Your task to perform on an android device: allow cookies in the chrome app Image 0: 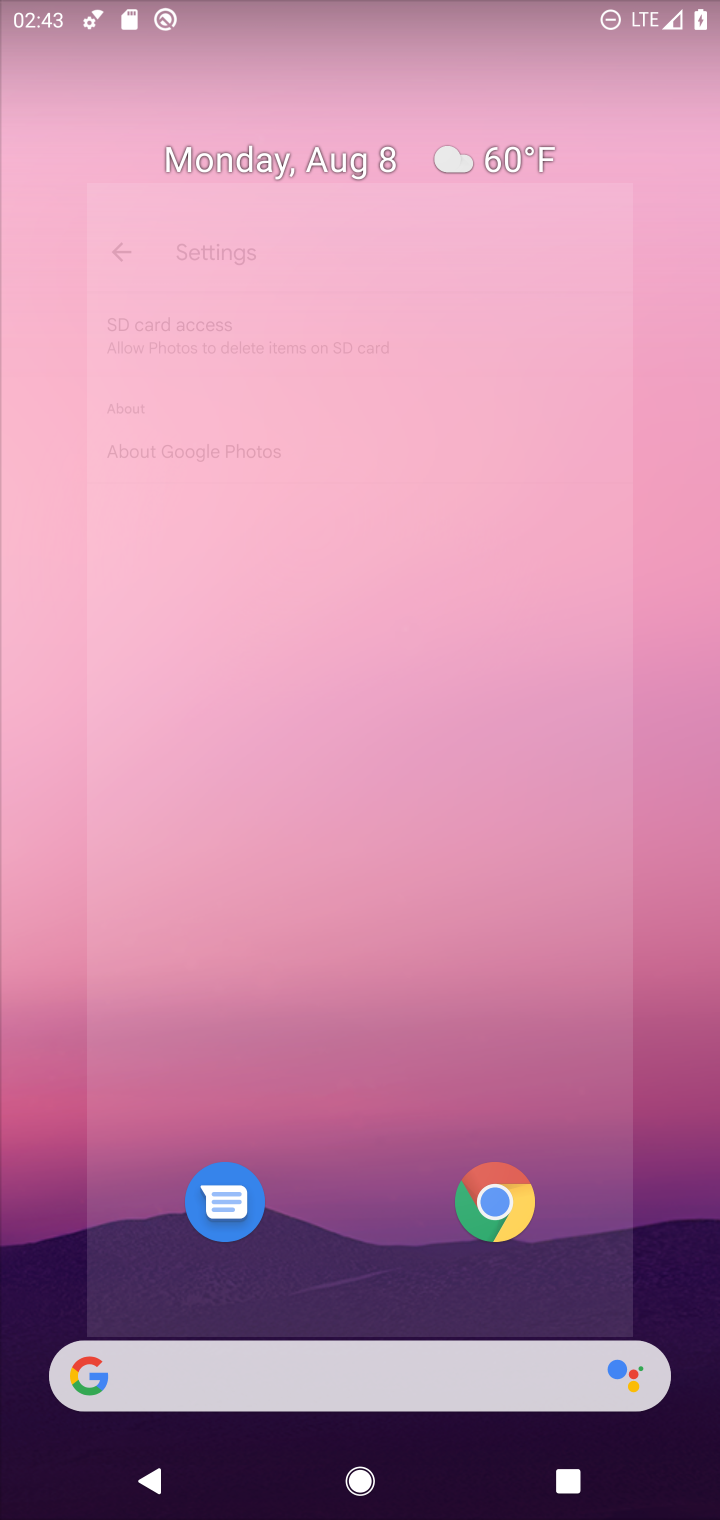
Step 0: press home button
Your task to perform on an android device: allow cookies in the chrome app Image 1: 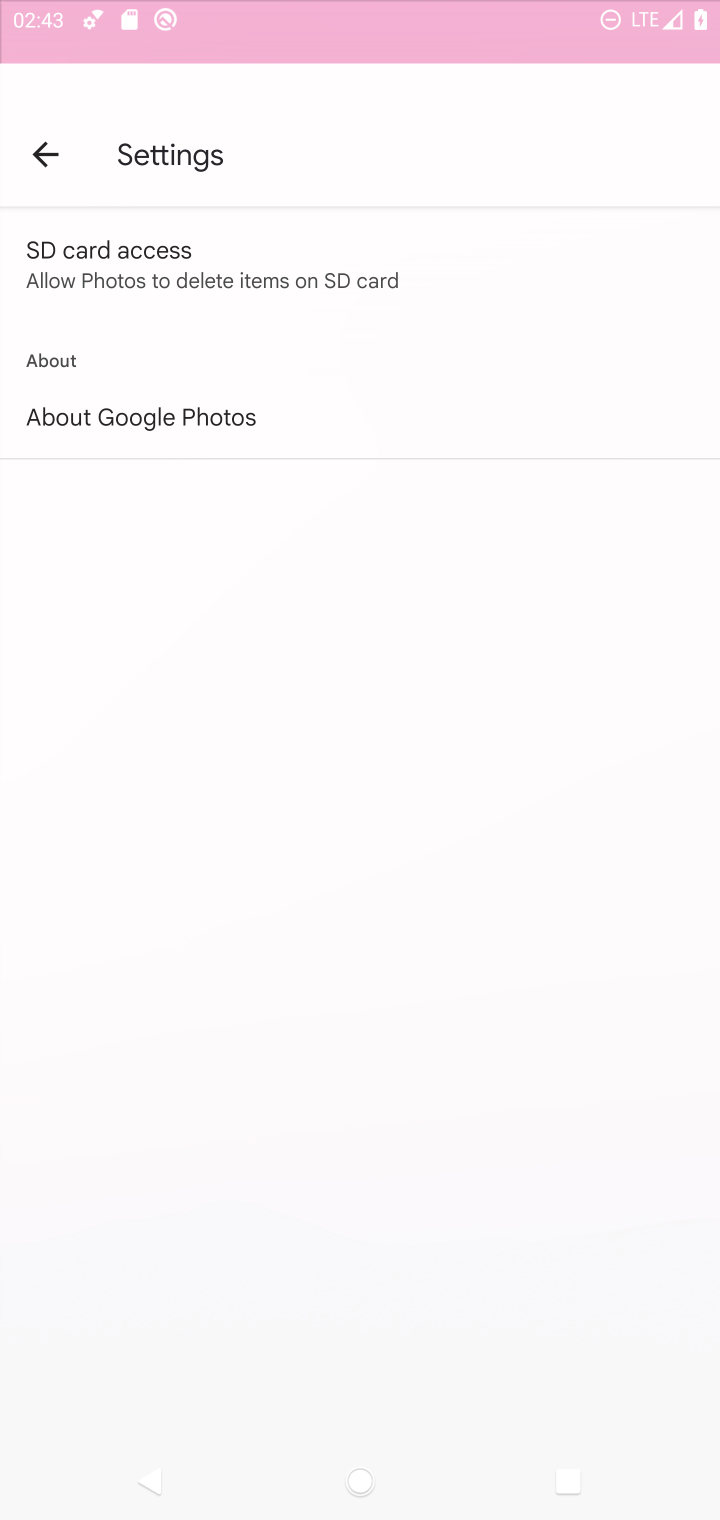
Step 1: press home button
Your task to perform on an android device: allow cookies in the chrome app Image 2: 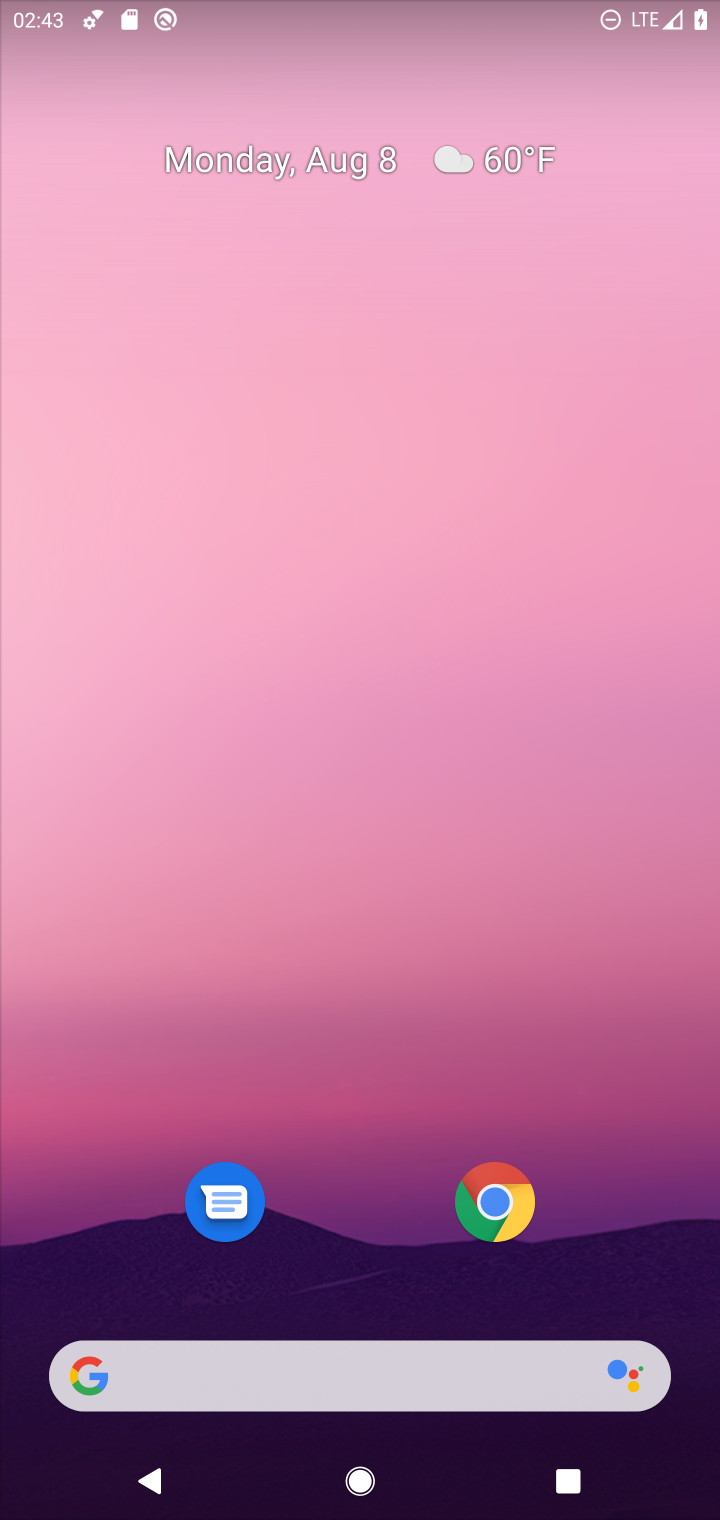
Step 2: drag from (362, 1283) to (513, 204)
Your task to perform on an android device: allow cookies in the chrome app Image 3: 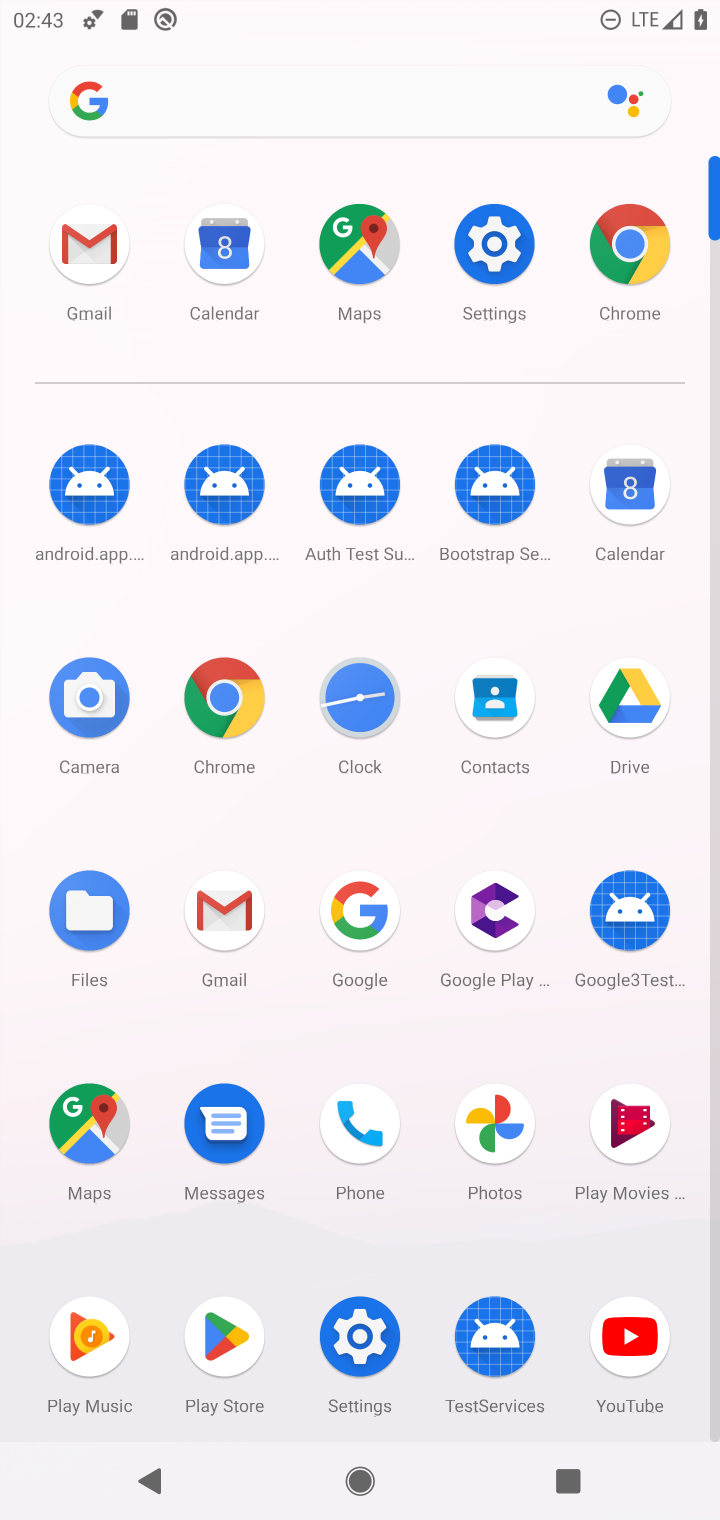
Step 3: click (223, 704)
Your task to perform on an android device: allow cookies in the chrome app Image 4: 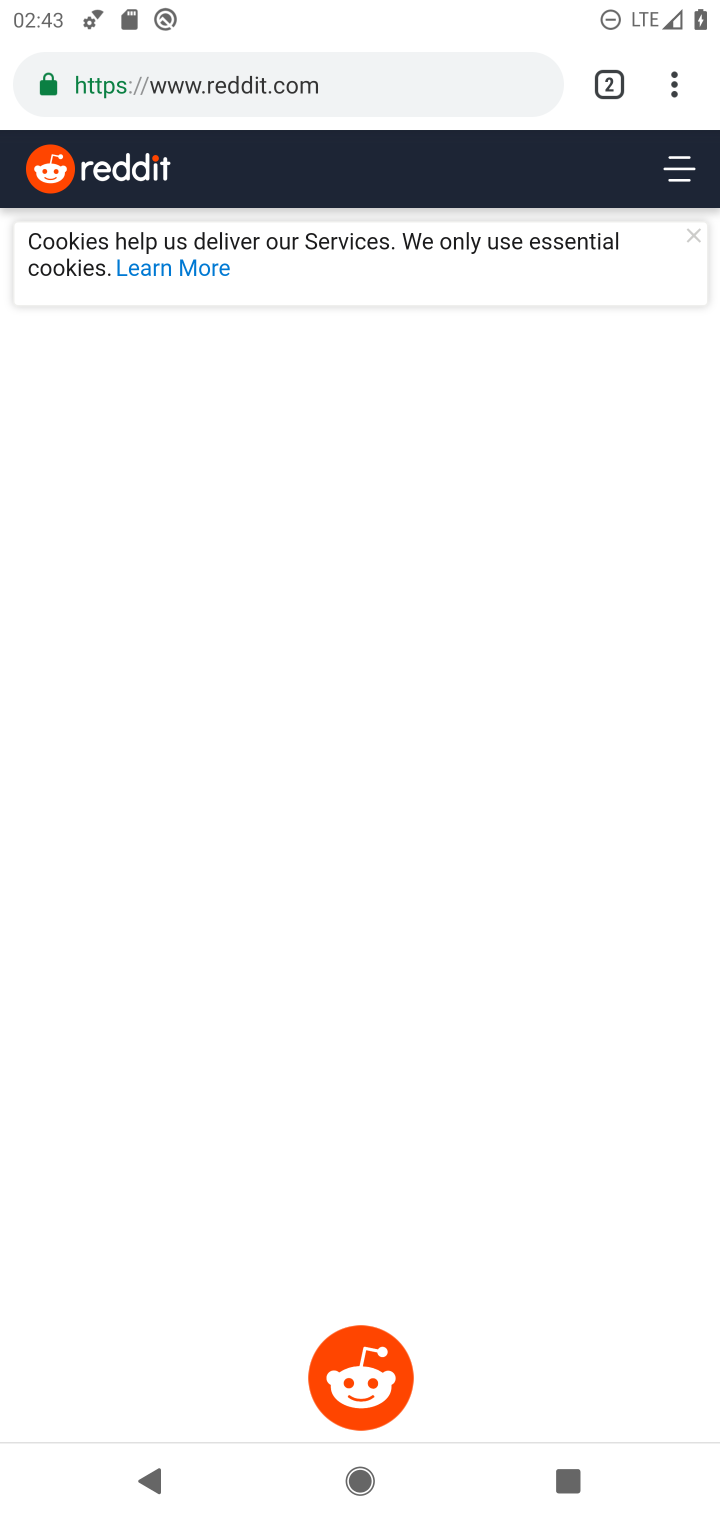
Step 4: click (671, 83)
Your task to perform on an android device: allow cookies in the chrome app Image 5: 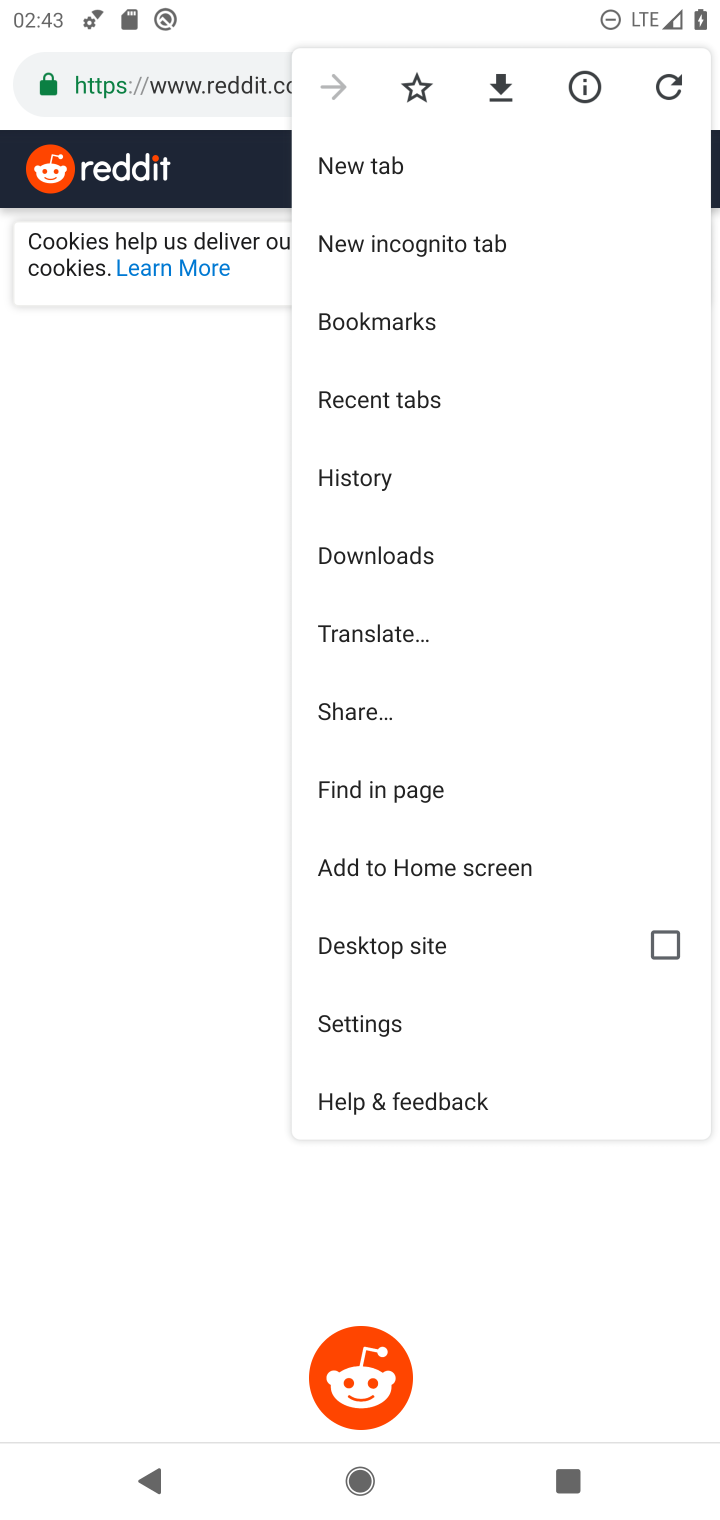
Step 5: click (424, 1029)
Your task to perform on an android device: allow cookies in the chrome app Image 6: 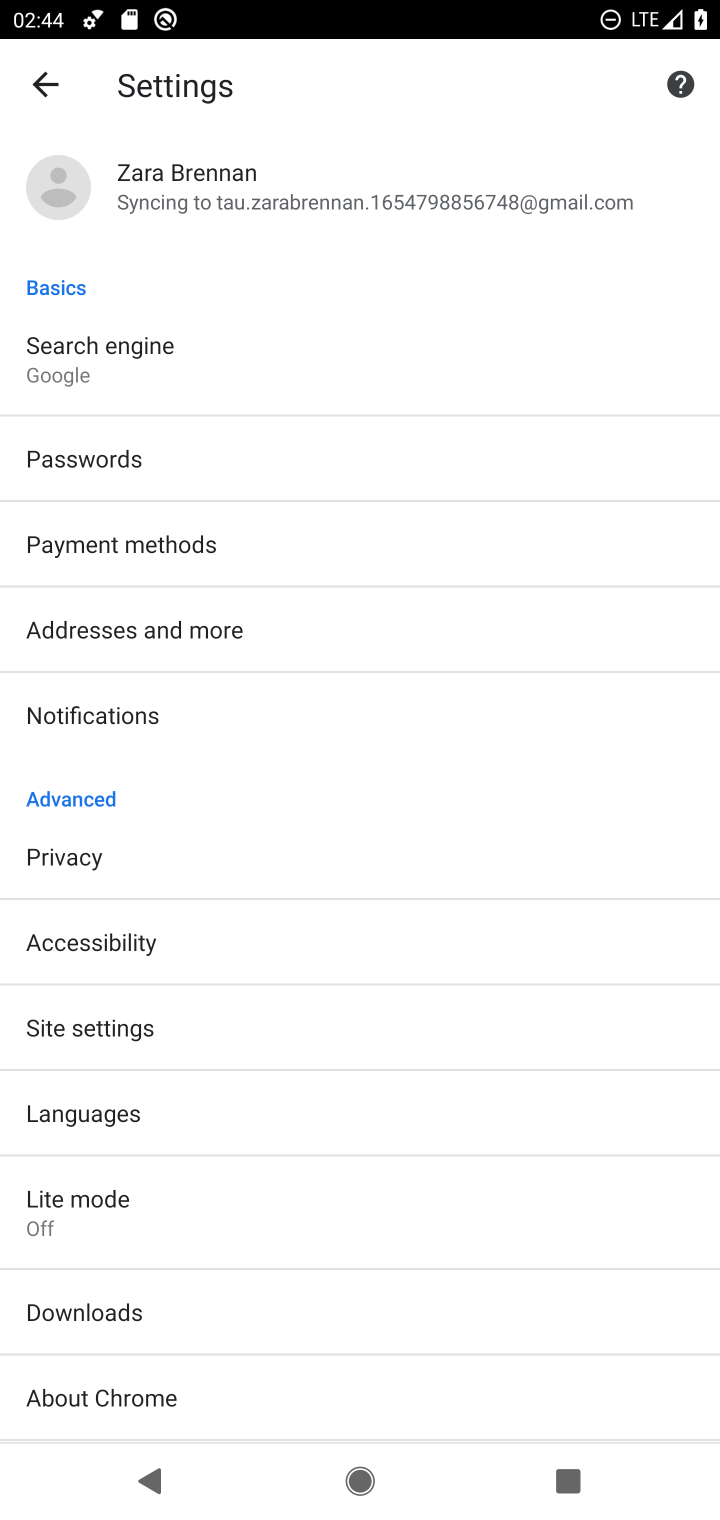
Step 6: drag from (572, 953) to (589, 696)
Your task to perform on an android device: allow cookies in the chrome app Image 7: 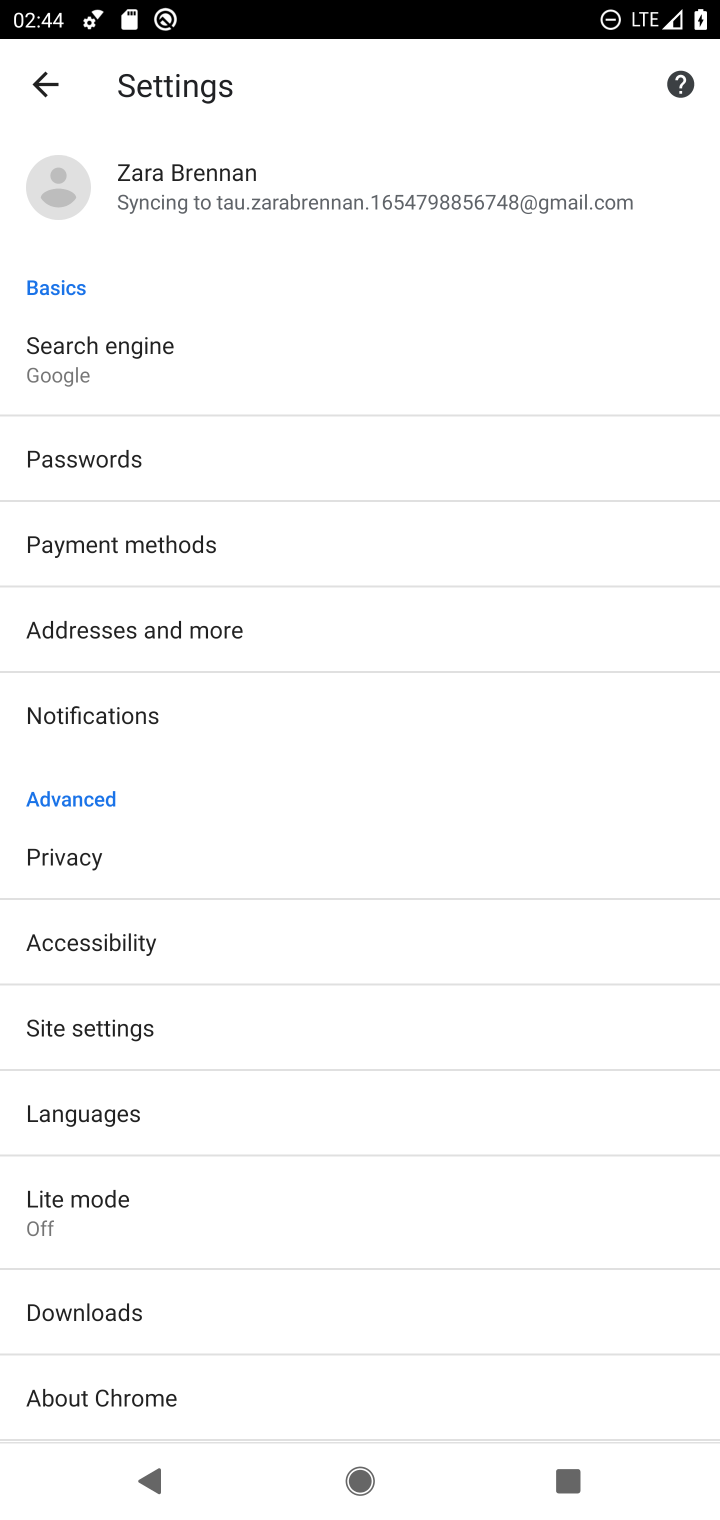
Step 7: drag from (544, 1048) to (570, 573)
Your task to perform on an android device: allow cookies in the chrome app Image 8: 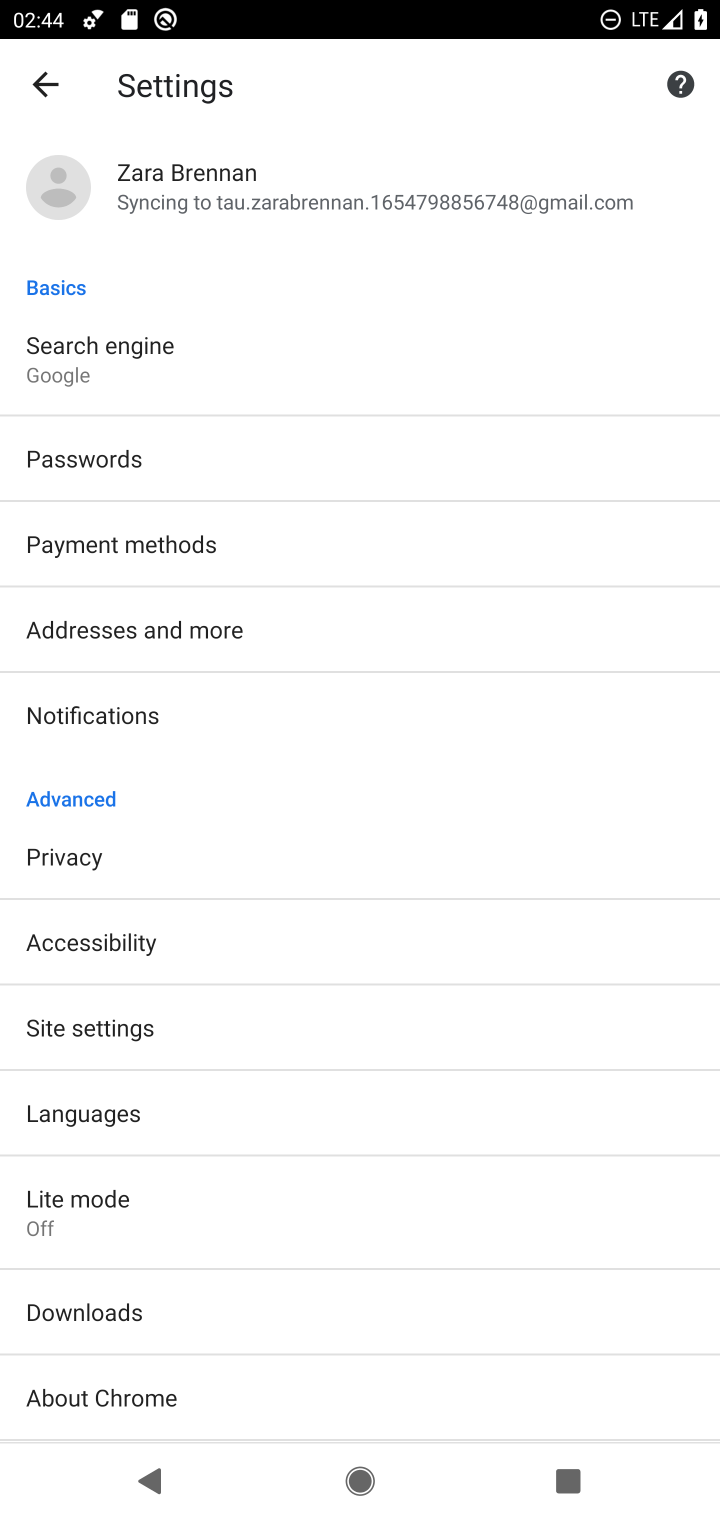
Step 8: drag from (505, 1116) to (517, 591)
Your task to perform on an android device: allow cookies in the chrome app Image 9: 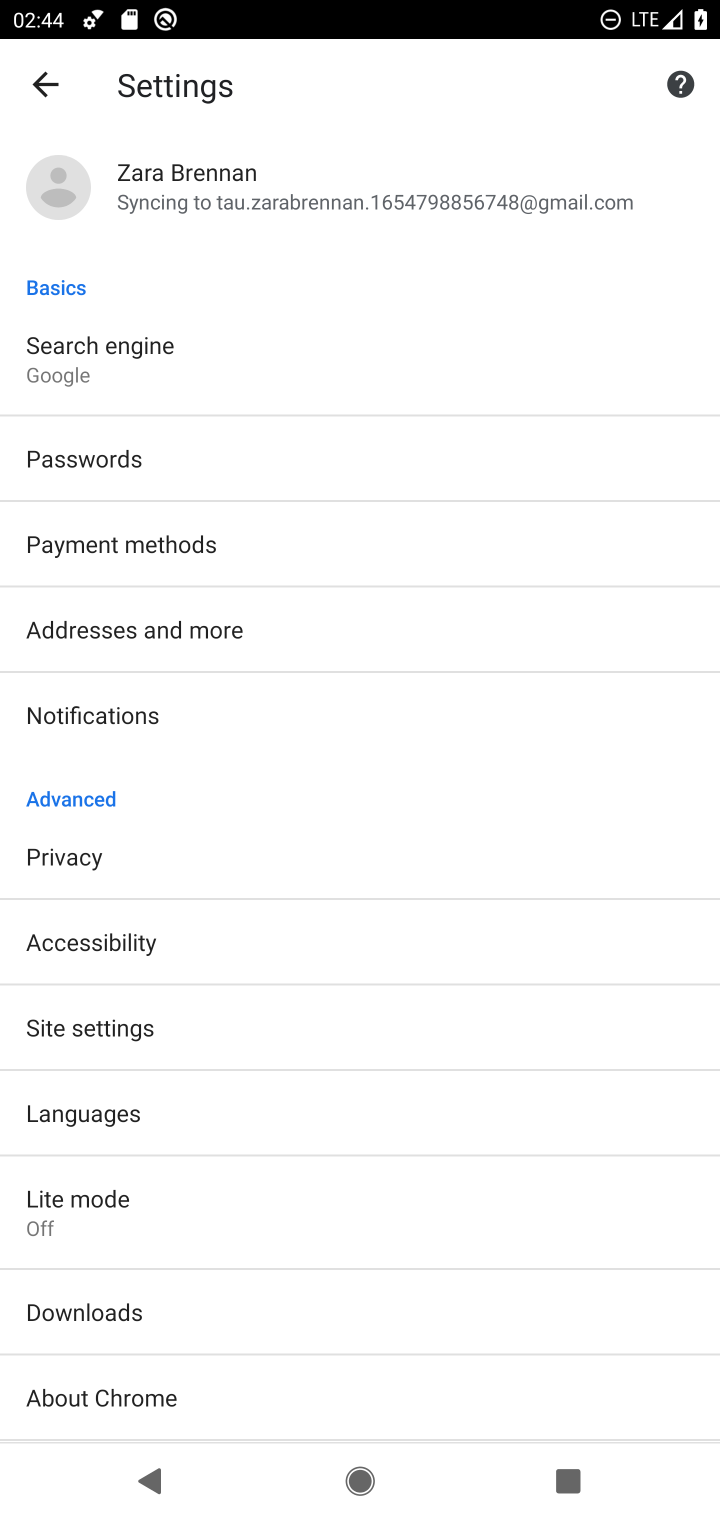
Step 9: drag from (489, 478) to (497, 883)
Your task to perform on an android device: allow cookies in the chrome app Image 10: 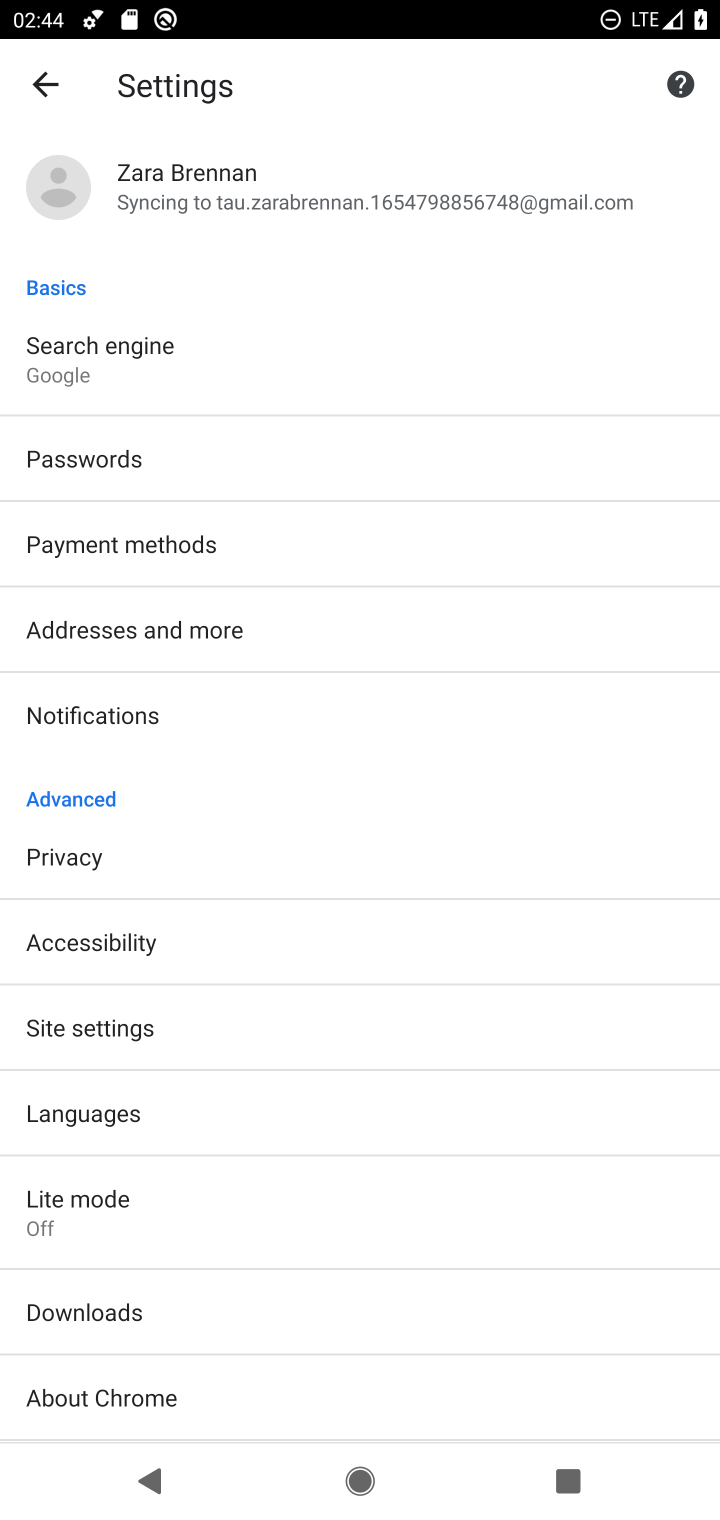
Step 10: click (277, 1028)
Your task to perform on an android device: allow cookies in the chrome app Image 11: 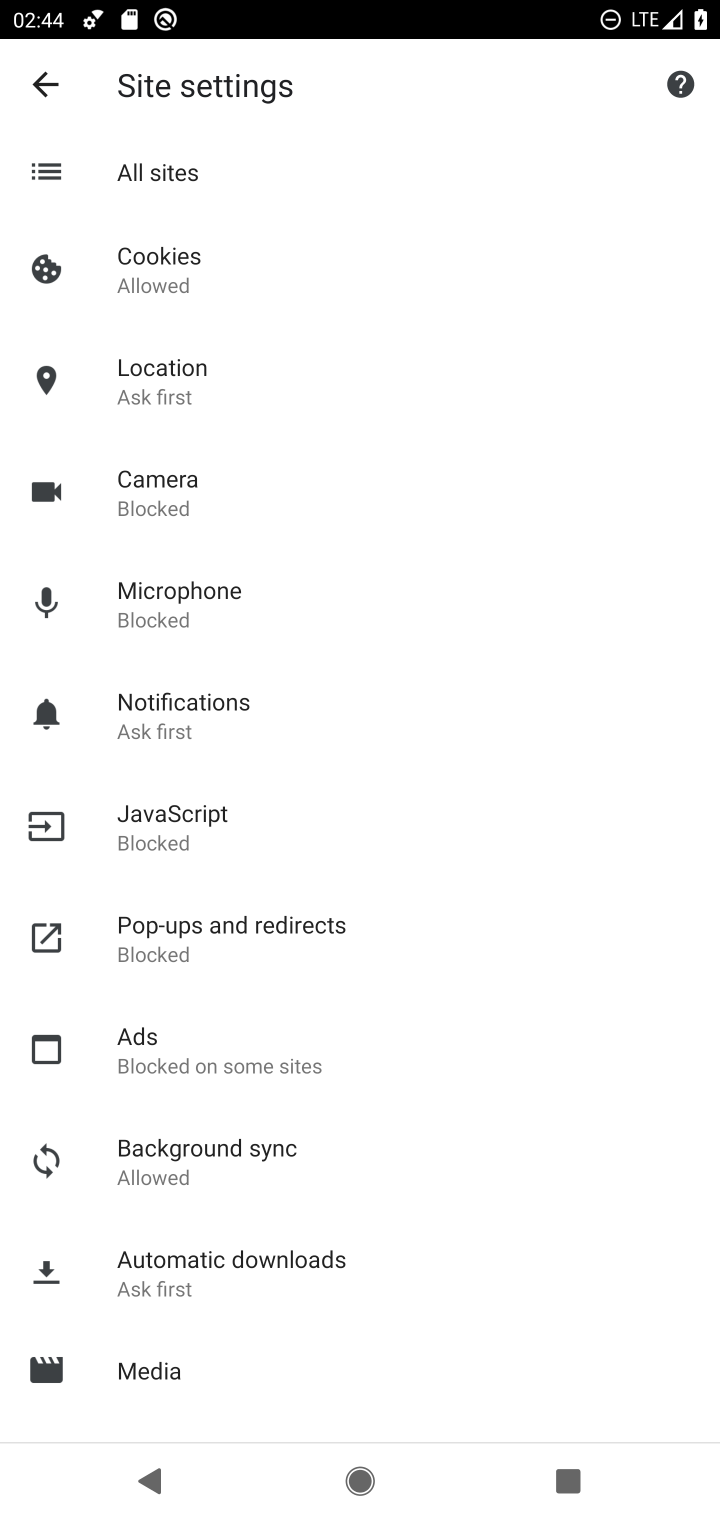
Step 11: drag from (424, 294) to (430, 754)
Your task to perform on an android device: allow cookies in the chrome app Image 12: 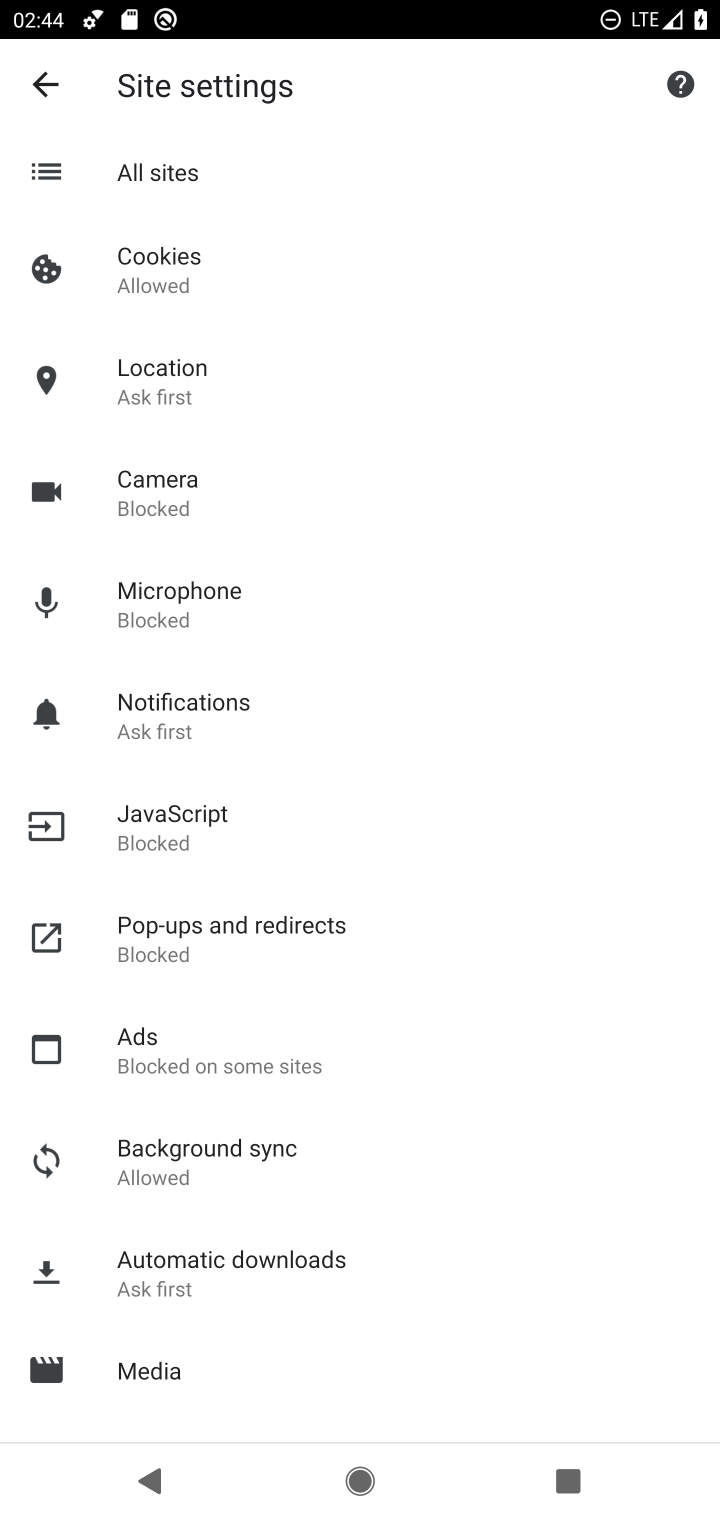
Step 12: click (162, 260)
Your task to perform on an android device: allow cookies in the chrome app Image 13: 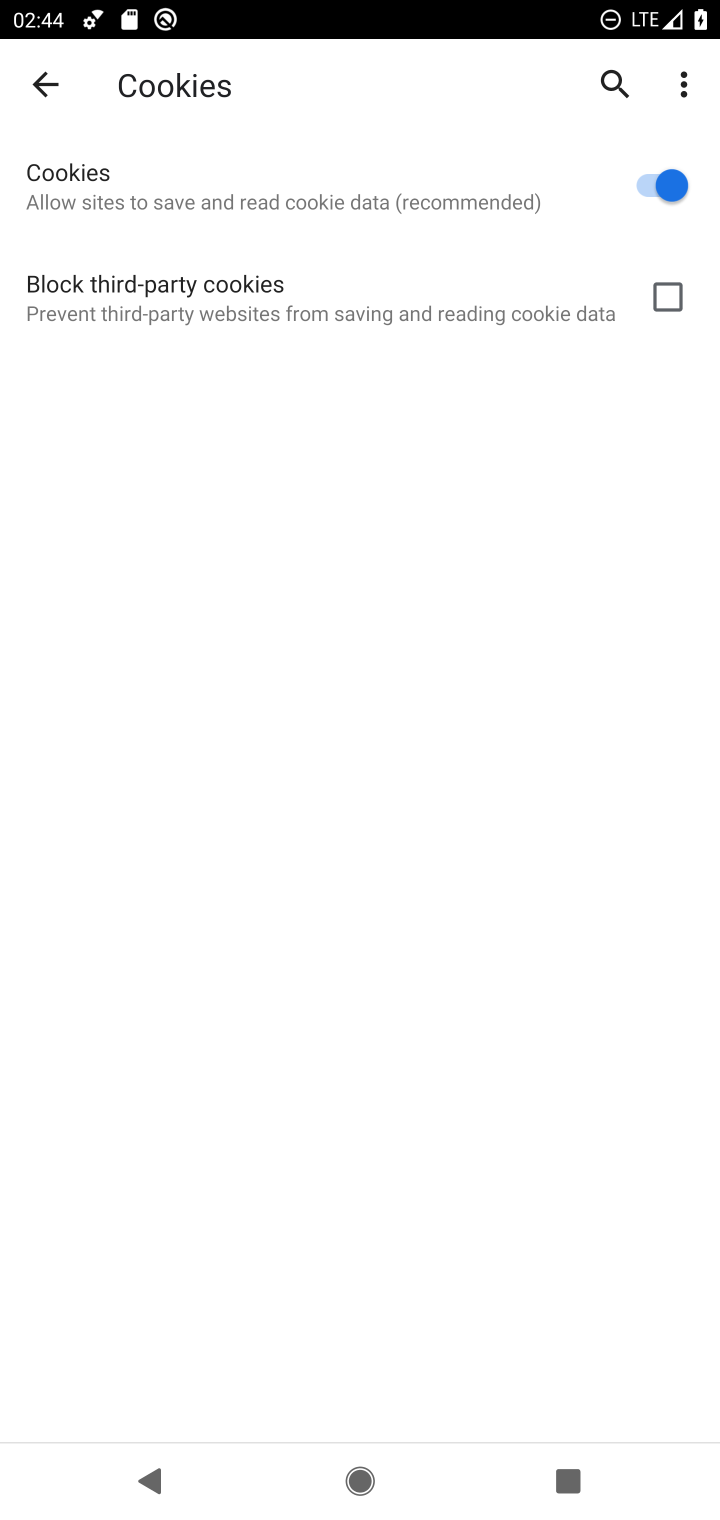
Step 13: task complete